Your task to perform on an android device: Open the calendar and show me this week's events Image 0: 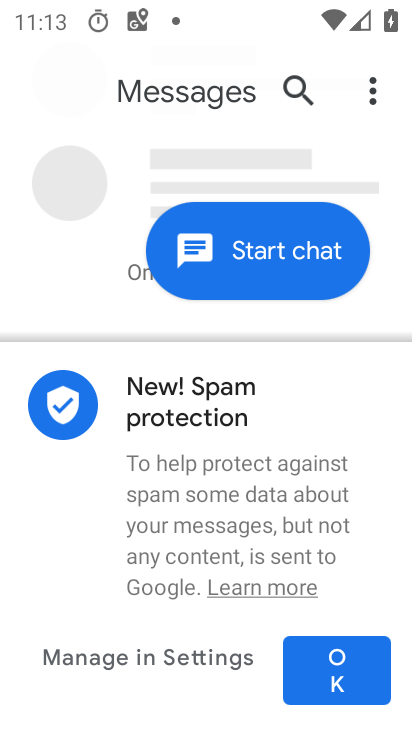
Step 0: press home button
Your task to perform on an android device: Open the calendar and show me this week's events Image 1: 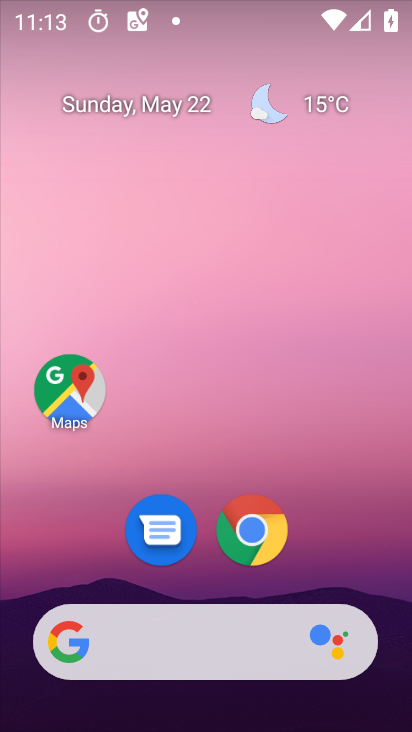
Step 1: drag from (391, 649) to (356, 176)
Your task to perform on an android device: Open the calendar and show me this week's events Image 2: 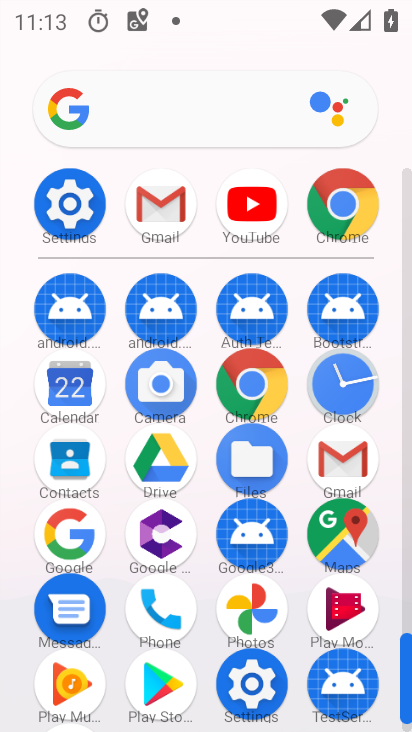
Step 2: click (60, 392)
Your task to perform on an android device: Open the calendar and show me this week's events Image 3: 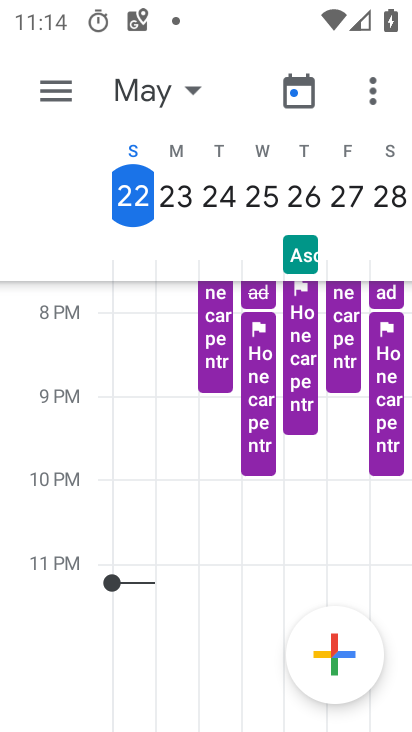
Step 3: click (187, 91)
Your task to perform on an android device: Open the calendar and show me this week's events Image 4: 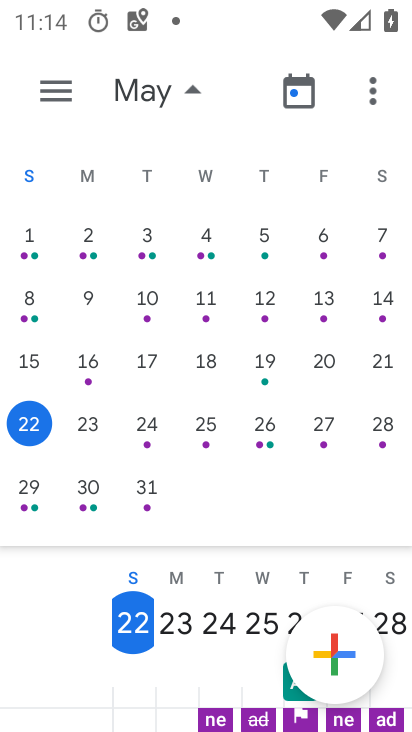
Step 4: click (38, 427)
Your task to perform on an android device: Open the calendar and show me this week's events Image 5: 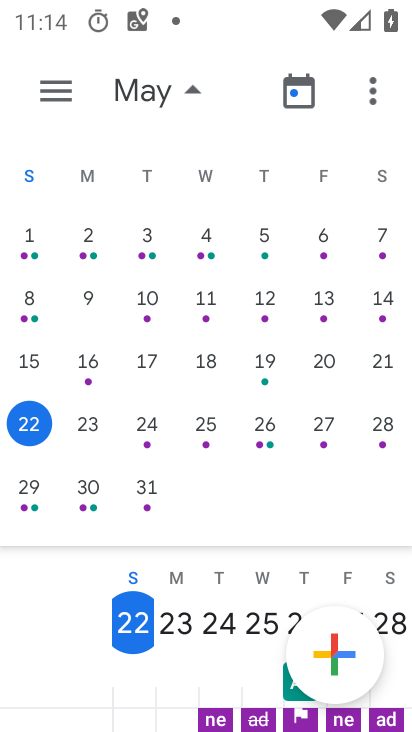
Step 5: click (56, 88)
Your task to perform on an android device: Open the calendar and show me this week's events Image 6: 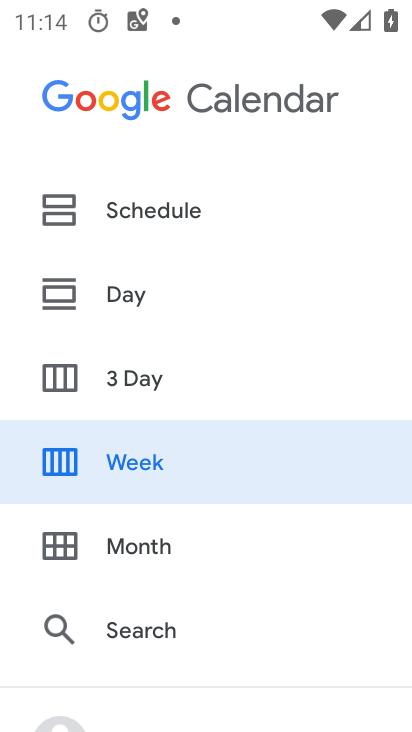
Step 6: click (105, 471)
Your task to perform on an android device: Open the calendar and show me this week's events Image 7: 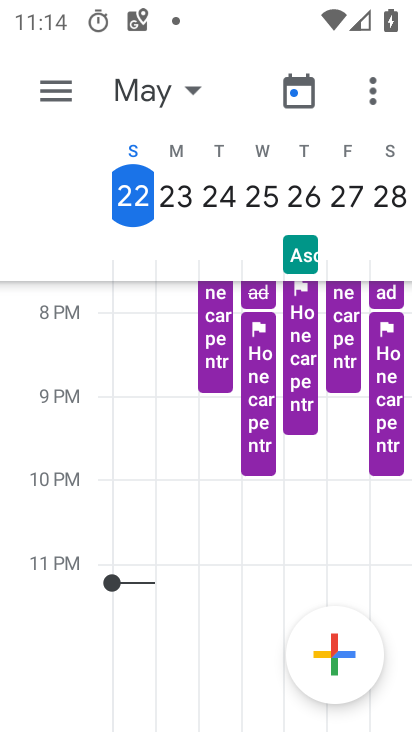
Step 7: task complete